Your task to perform on an android device: Set the phone to "Do not disturb". Image 0: 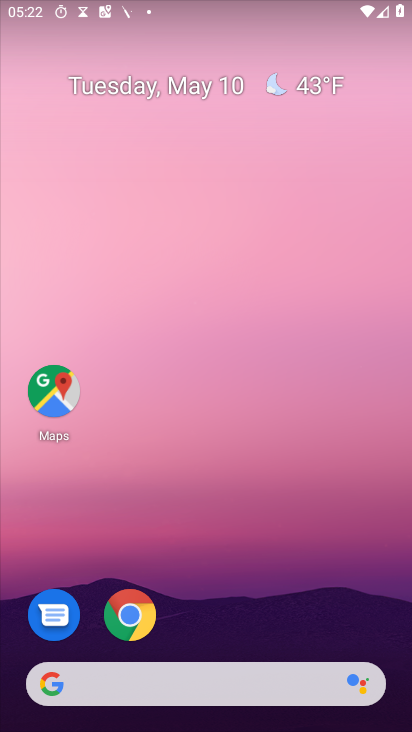
Step 0: drag from (266, 650) to (239, 72)
Your task to perform on an android device: Set the phone to "Do not disturb". Image 1: 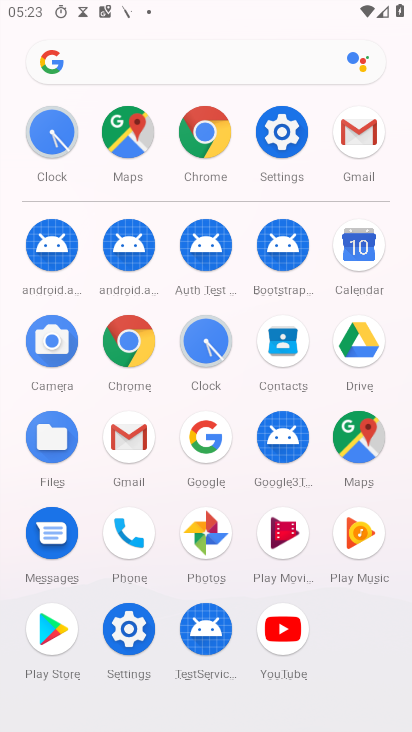
Step 1: click (296, 137)
Your task to perform on an android device: Set the phone to "Do not disturb". Image 2: 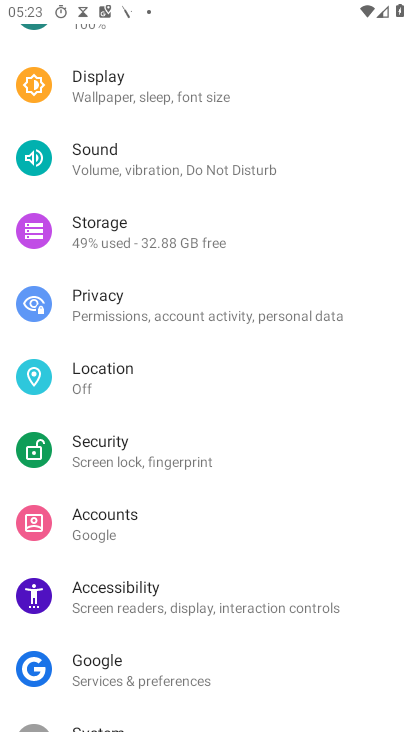
Step 2: drag from (292, 651) to (277, 174)
Your task to perform on an android device: Set the phone to "Do not disturb". Image 3: 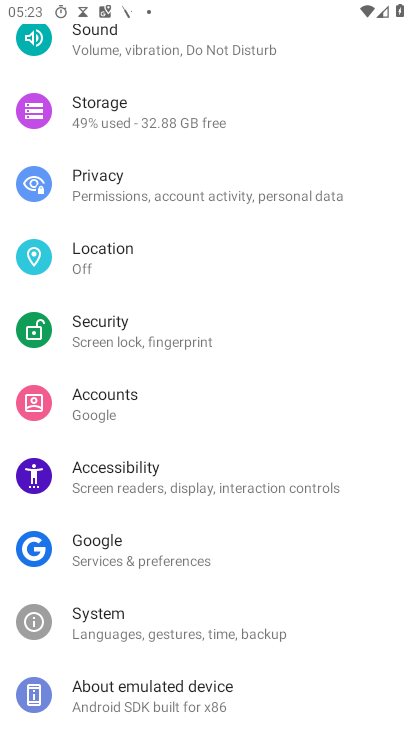
Step 3: drag from (190, 192) to (202, 625)
Your task to perform on an android device: Set the phone to "Do not disturb". Image 4: 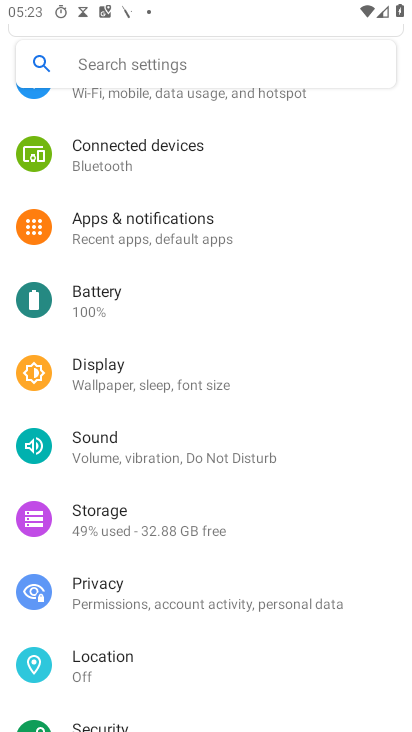
Step 4: click (117, 447)
Your task to perform on an android device: Set the phone to "Do not disturb". Image 5: 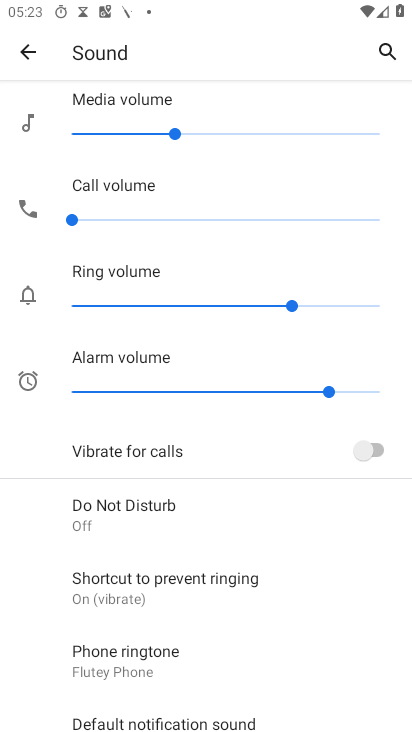
Step 5: drag from (317, 700) to (327, 561)
Your task to perform on an android device: Set the phone to "Do not disturb". Image 6: 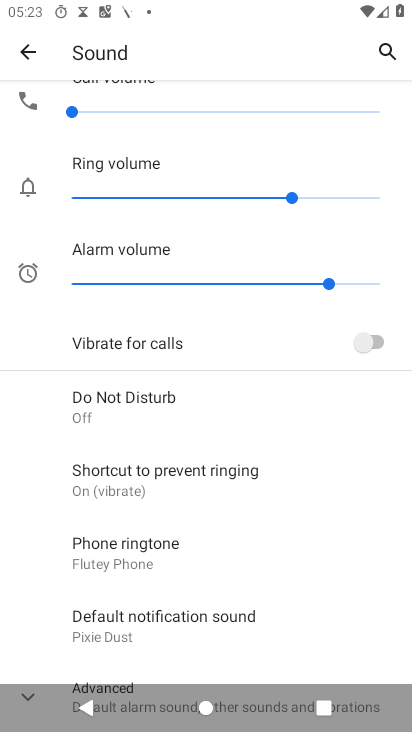
Step 6: click (210, 402)
Your task to perform on an android device: Set the phone to "Do not disturb". Image 7: 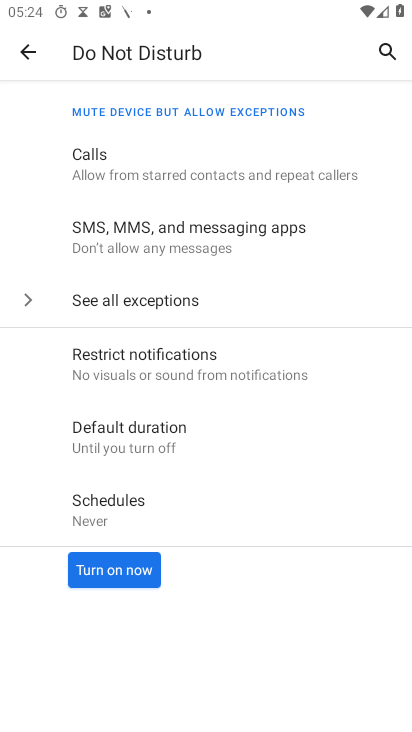
Step 7: click (115, 581)
Your task to perform on an android device: Set the phone to "Do not disturb". Image 8: 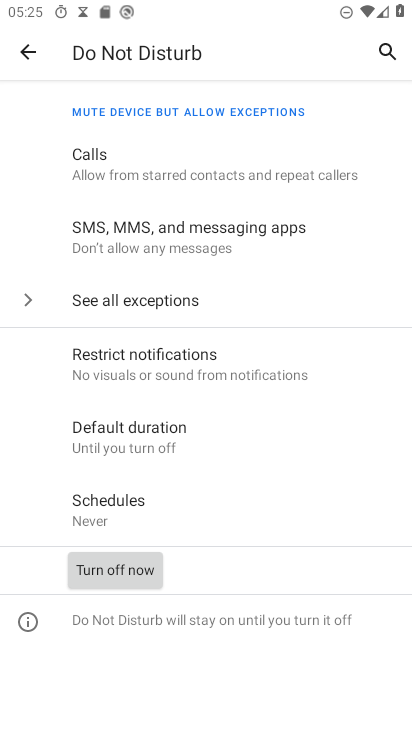
Step 8: click (92, 564)
Your task to perform on an android device: Set the phone to "Do not disturb". Image 9: 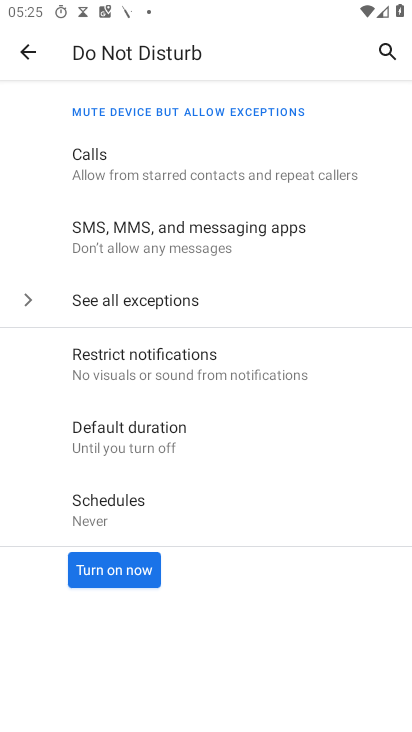
Step 9: click (131, 579)
Your task to perform on an android device: Set the phone to "Do not disturb". Image 10: 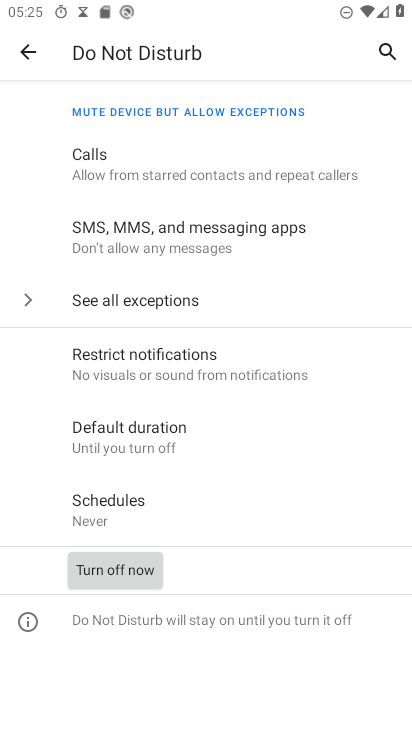
Step 10: task complete